Your task to perform on an android device: find snoozed emails in the gmail app Image 0: 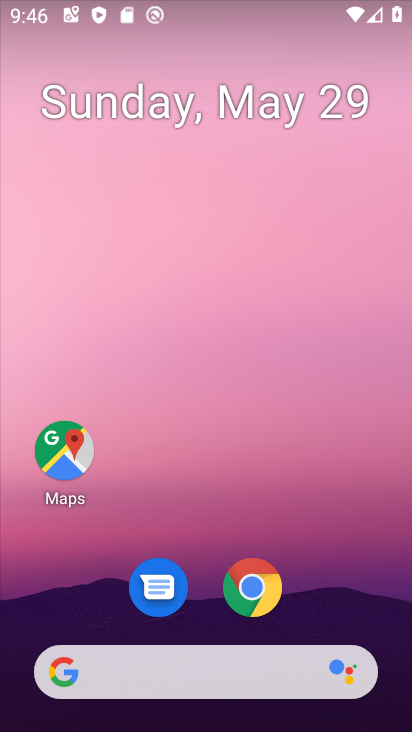
Step 0: drag from (206, 535) to (219, 52)
Your task to perform on an android device: find snoozed emails in the gmail app Image 1: 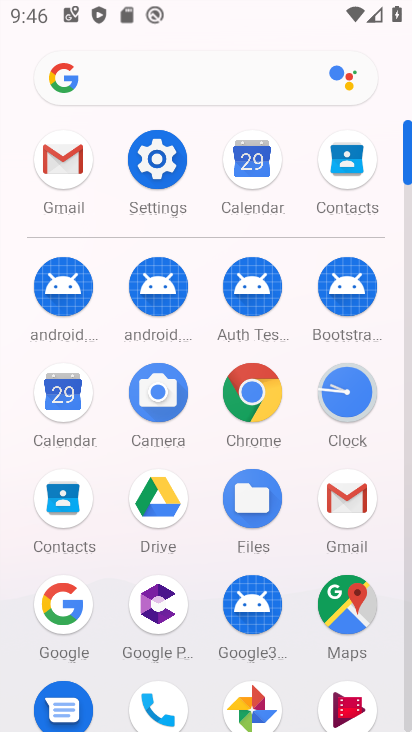
Step 1: click (344, 502)
Your task to perform on an android device: find snoozed emails in the gmail app Image 2: 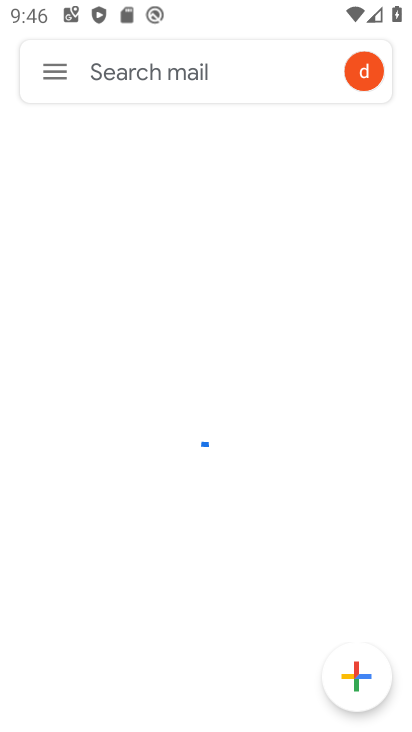
Step 2: click (42, 67)
Your task to perform on an android device: find snoozed emails in the gmail app Image 3: 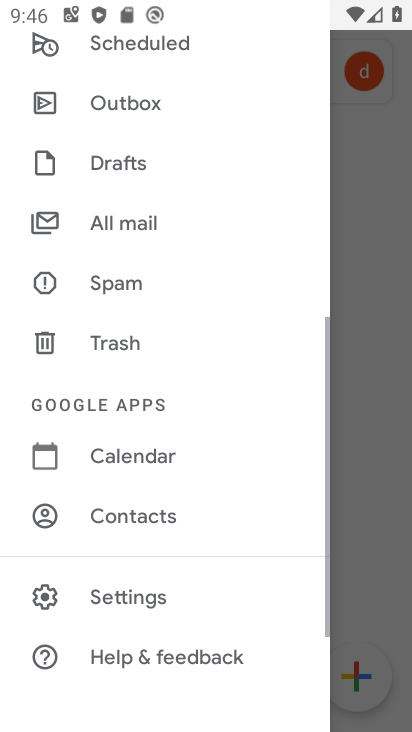
Step 3: drag from (134, 148) to (138, 609)
Your task to perform on an android device: find snoozed emails in the gmail app Image 4: 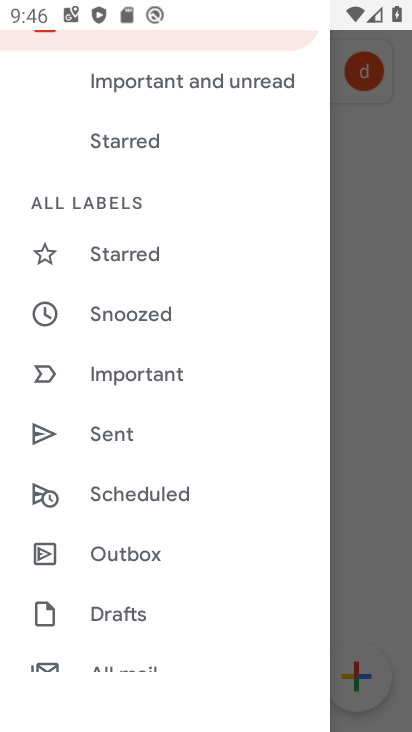
Step 4: click (125, 320)
Your task to perform on an android device: find snoozed emails in the gmail app Image 5: 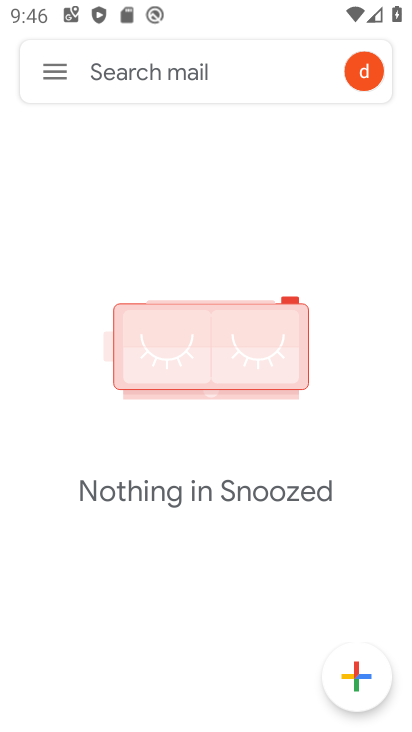
Step 5: task complete